Your task to perform on an android device: delete the emails in spam in the gmail app Image 0: 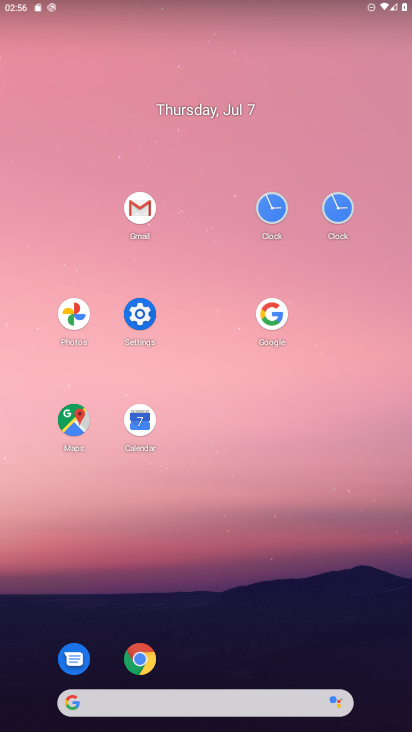
Step 0: click (151, 201)
Your task to perform on an android device: delete the emails in spam in the gmail app Image 1: 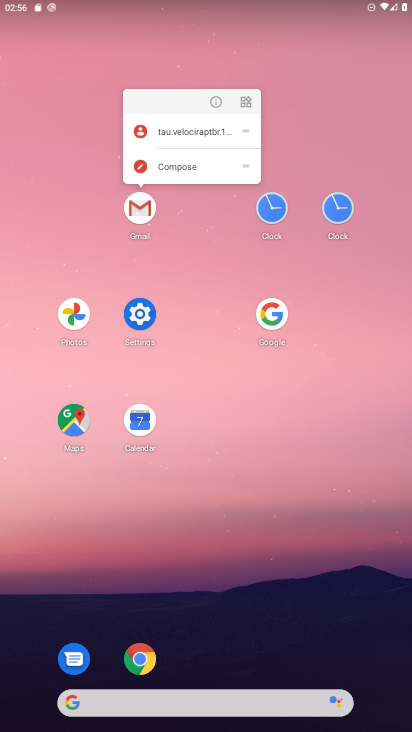
Step 1: click (151, 201)
Your task to perform on an android device: delete the emails in spam in the gmail app Image 2: 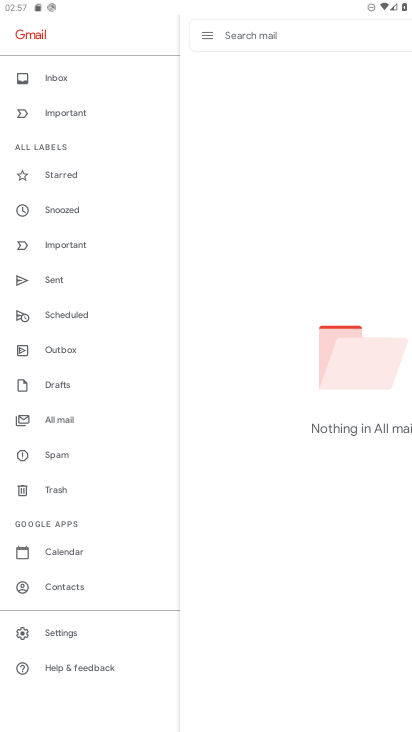
Step 2: click (85, 455)
Your task to perform on an android device: delete the emails in spam in the gmail app Image 3: 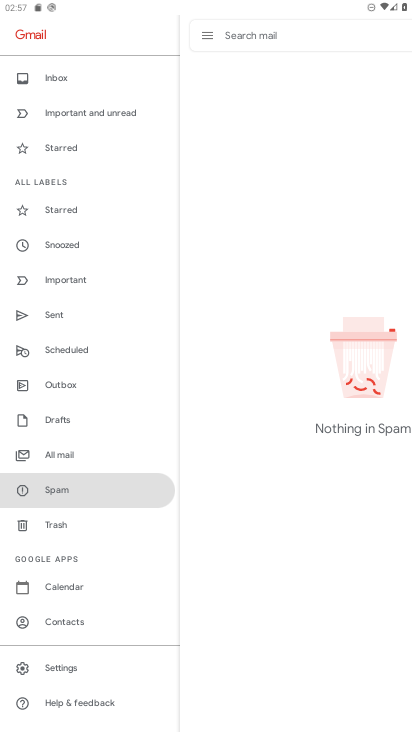
Step 3: task complete